Your task to perform on an android device: Open settings Image 0: 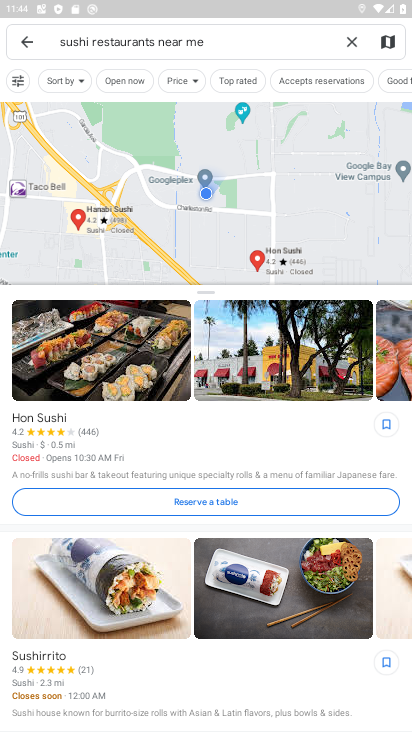
Step 0: press home button
Your task to perform on an android device: Open settings Image 1: 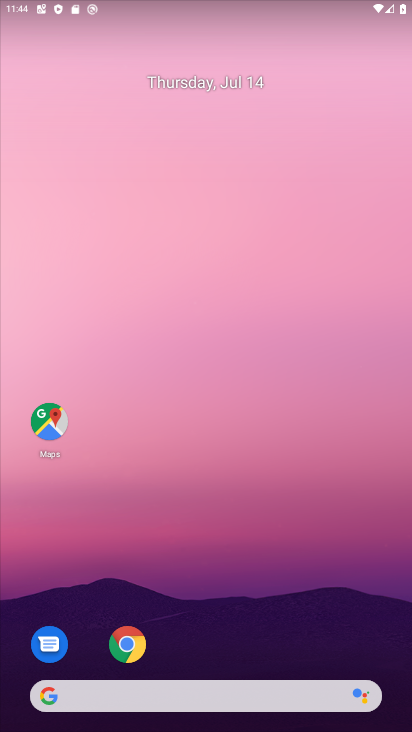
Step 1: drag from (185, 704) to (268, 82)
Your task to perform on an android device: Open settings Image 2: 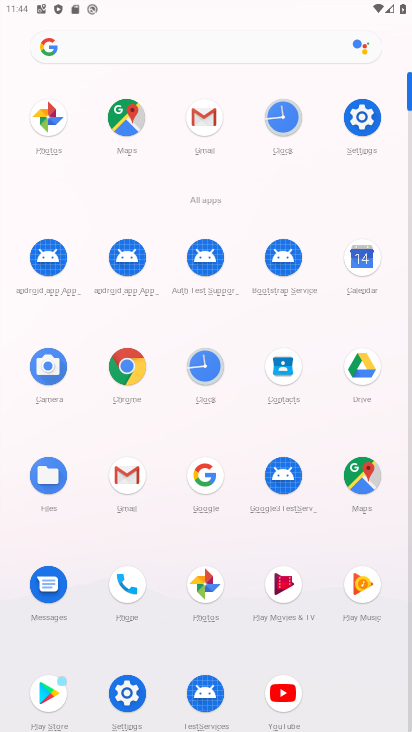
Step 2: click (128, 688)
Your task to perform on an android device: Open settings Image 3: 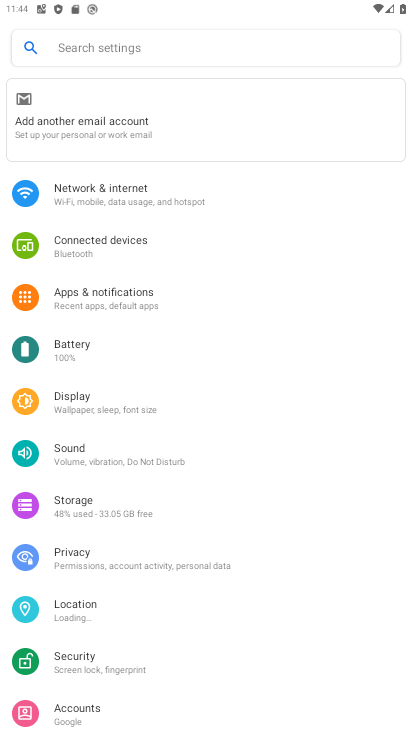
Step 3: task complete